Your task to perform on an android device: open the mobile data screen to see how much data has been used Image 0: 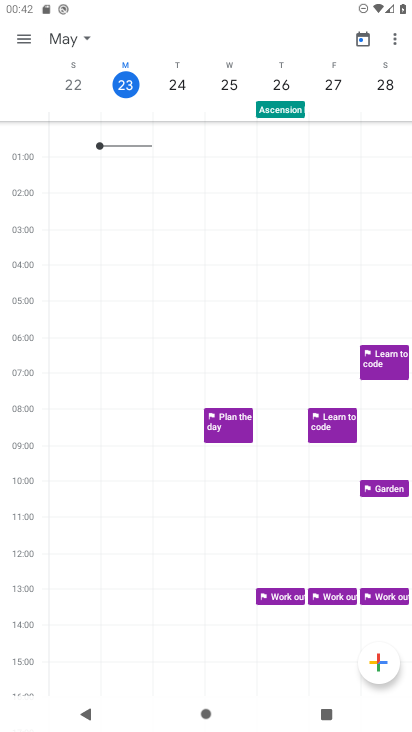
Step 0: press home button
Your task to perform on an android device: open the mobile data screen to see how much data has been used Image 1: 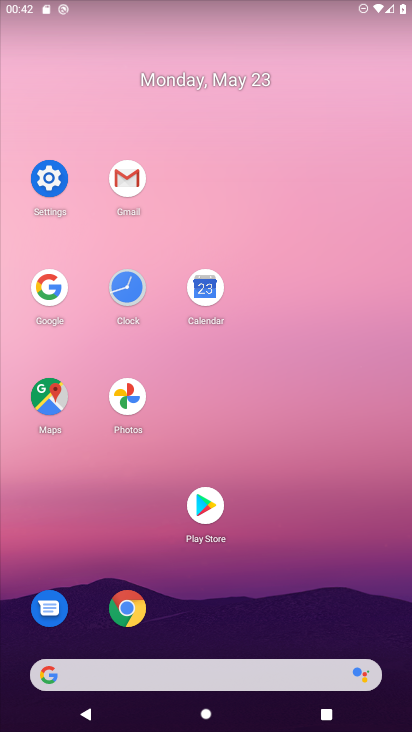
Step 1: click (47, 171)
Your task to perform on an android device: open the mobile data screen to see how much data has been used Image 2: 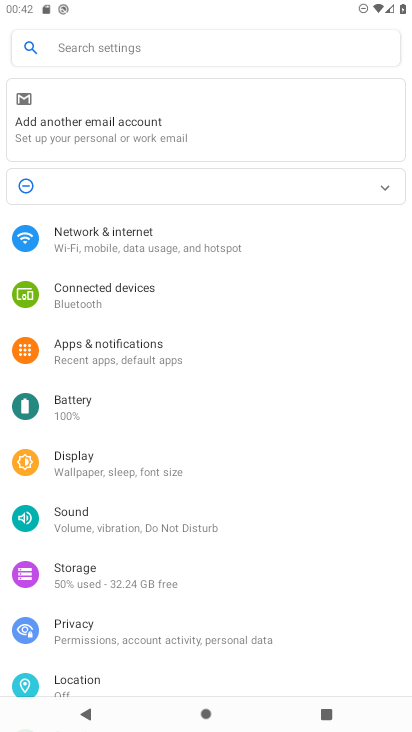
Step 2: click (186, 251)
Your task to perform on an android device: open the mobile data screen to see how much data has been used Image 3: 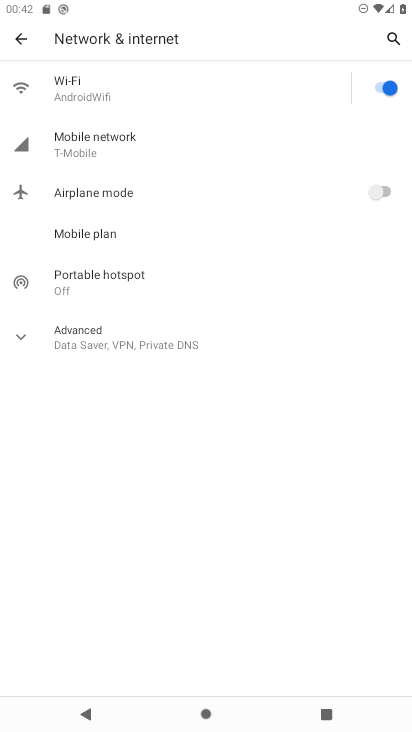
Step 3: click (69, 121)
Your task to perform on an android device: open the mobile data screen to see how much data has been used Image 4: 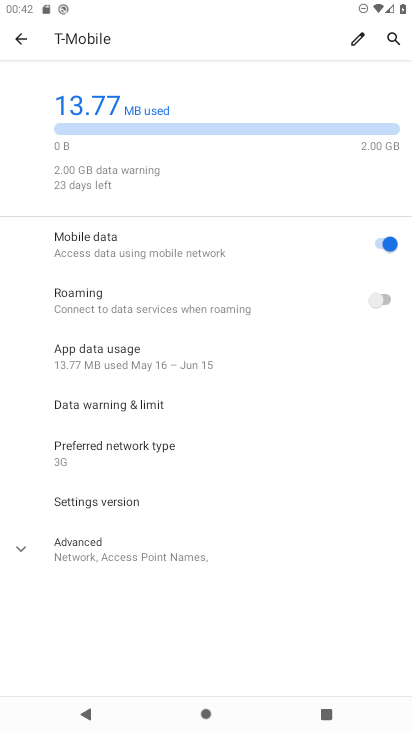
Step 4: click (205, 361)
Your task to perform on an android device: open the mobile data screen to see how much data has been used Image 5: 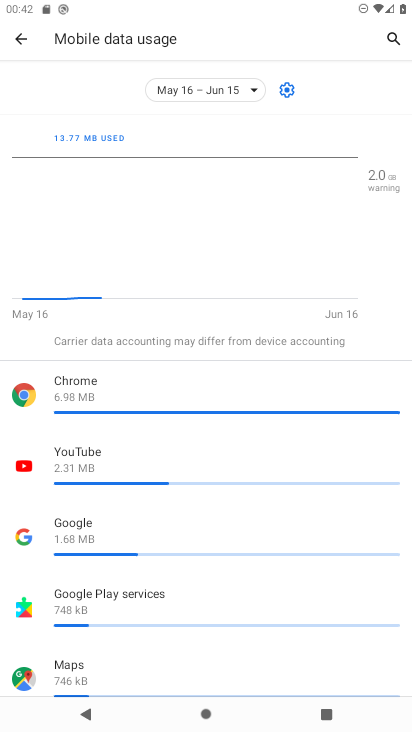
Step 5: task complete